Your task to perform on an android device: Go to calendar. Show me events next week Image 0: 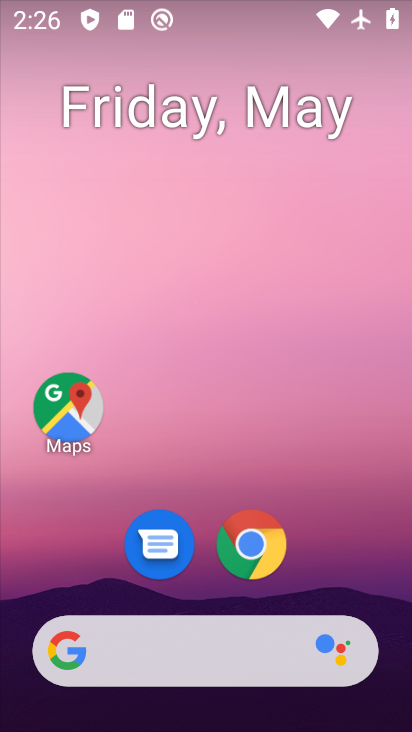
Step 0: drag from (177, 599) to (281, 41)
Your task to perform on an android device: Go to calendar. Show me events next week Image 1: 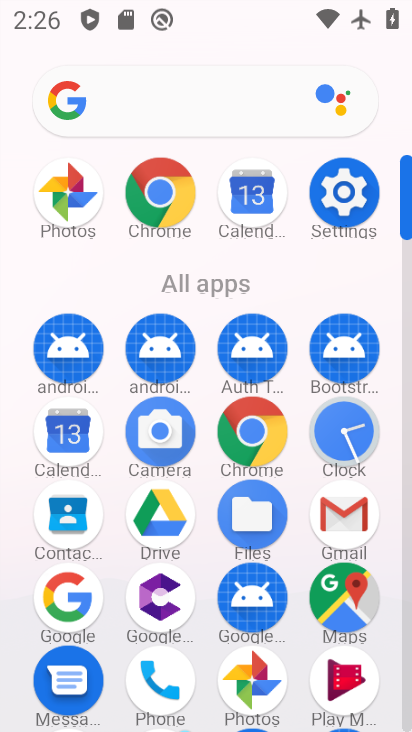
Step 1: click (72, 433)
Your task to perform on an android device: Go to calendar. Show me events next week Image 2: 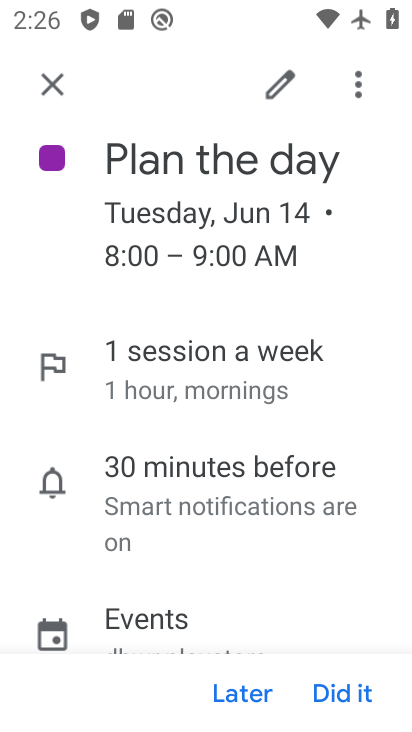
Step 2: click (59, 87)
Your task to perform on an android device: Go to calendar. Show me events next week Image 3: 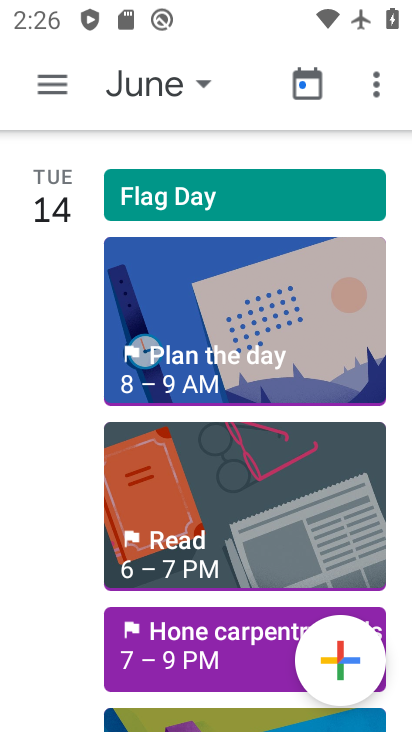
Step 3: task complete